Your task to perform on an android device: stop showing notifications on the lock screen Image 0: 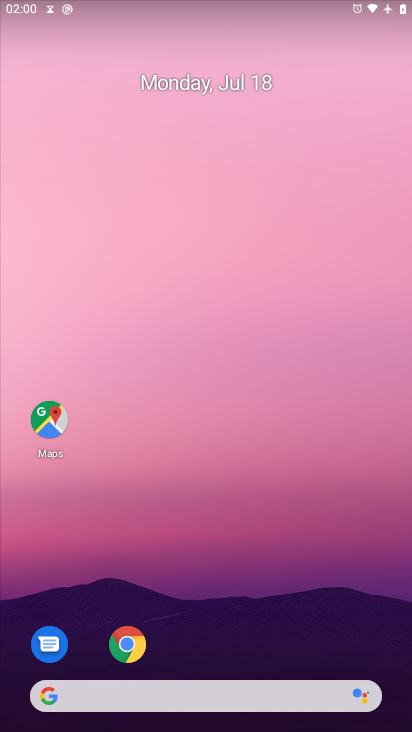
Step 0: press home button
Your task to perform on an android device: stop showing notifications on the lock screen Image 1: 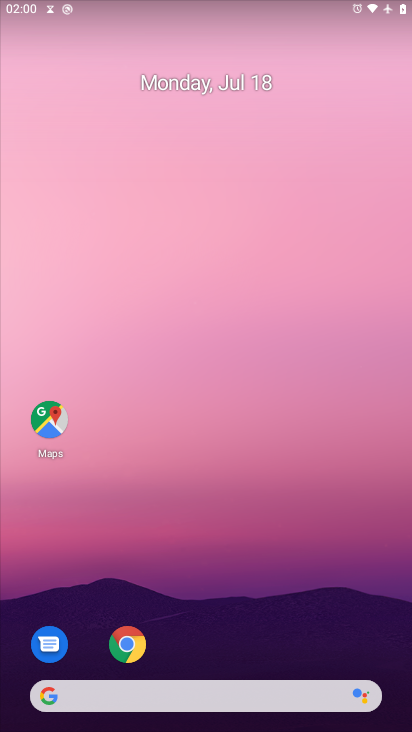
Step 1: drag from (295, 621) to (244, 95)
Your task to perform on an android device: stop showing notifications on the lock screen Image 2: 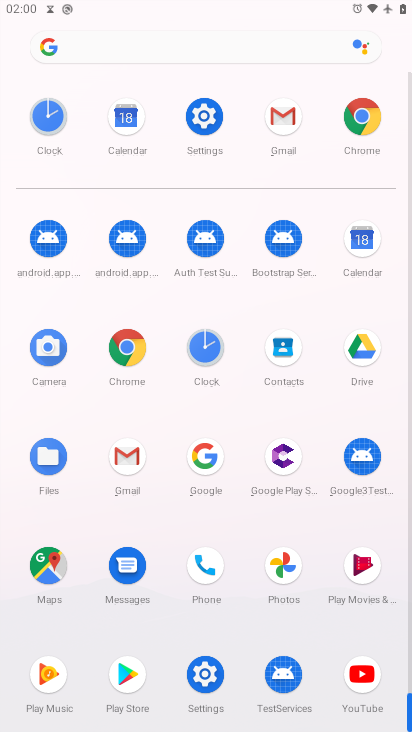
Step 2: click (198, 121)
Your task to perform on an android device: stop showing notifications on the lock screen Image 3: 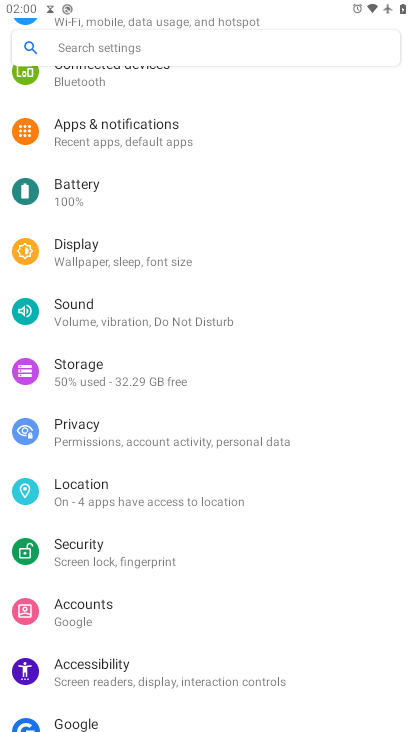
Step 3: click (102, 148)
Your task to perform on an android device: stop showing notifications on the lock screen Image 4: 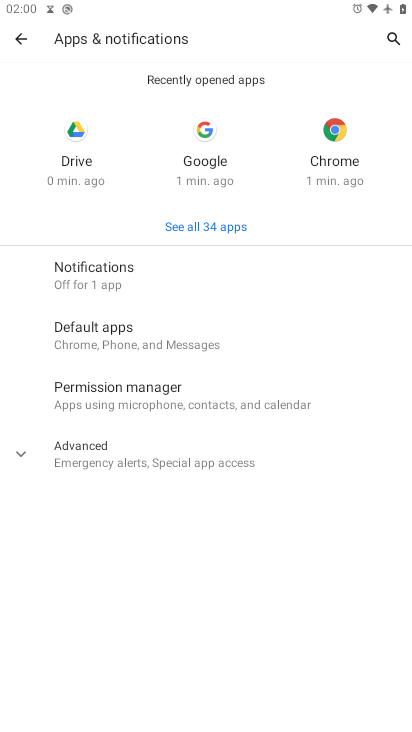
Step 4: click (101, 283)
Your task to perform on an android device: stop showing notifications on the lock screen Image 5: 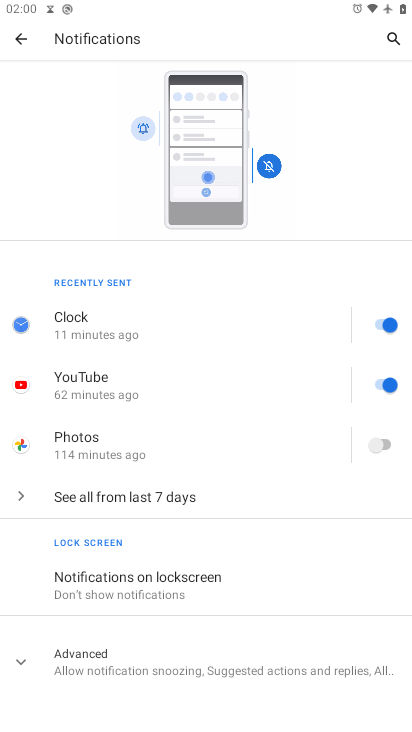
Step 5: click (159, 578)
Your task to perform on an android device: stop showing notifications on the lock screen Image 6: 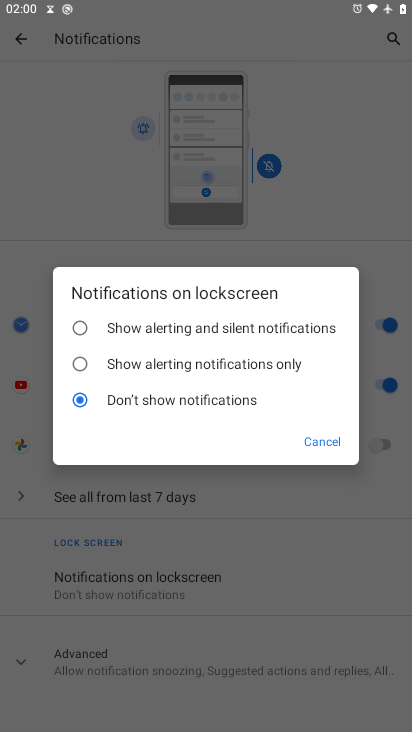
Step 6: task complete